Your task to perform on an android device: set an alarm Image 0: 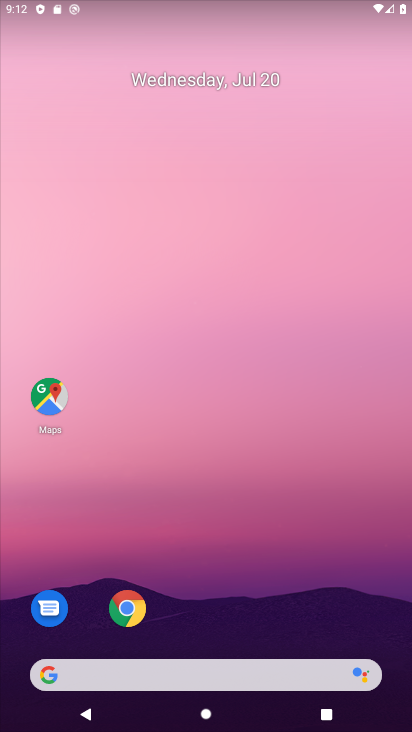
Step 0: drag from (313, 642) to (223, 63)
Your task to perform on an android device: set an alarm Image 1: 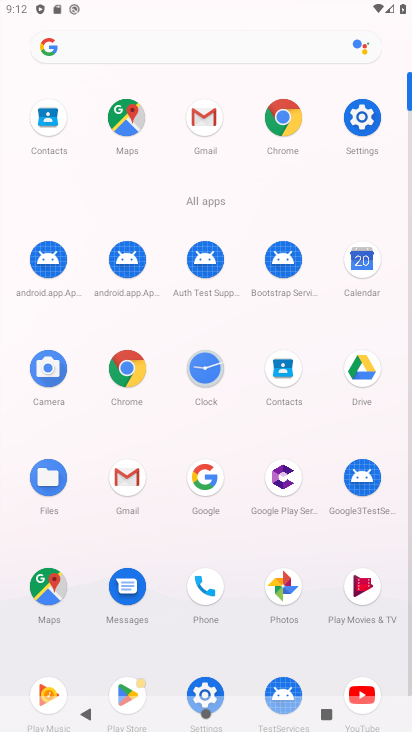
Step 1: click (209, 377)
Your task to perform on an android device: set an alarm Image 2: 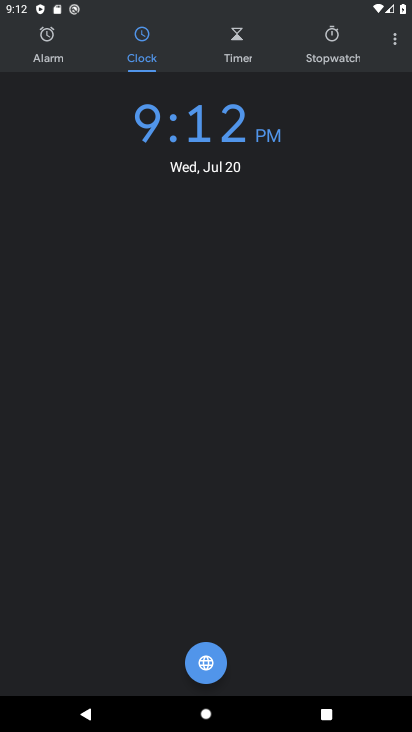
Step 2: click (53, 44)
Your task to perform on an android device: set an alarm Image 3: 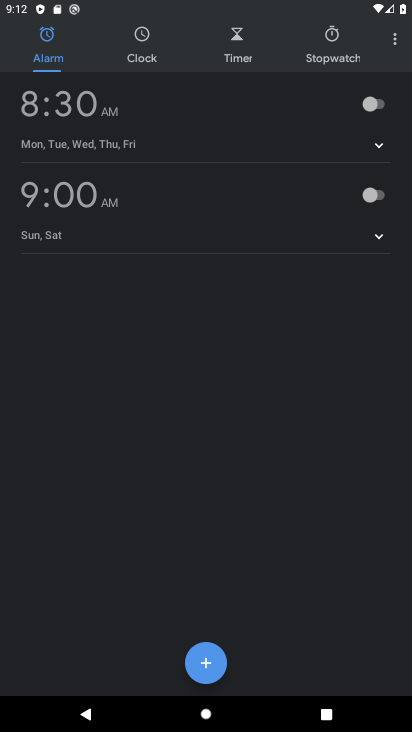
Step 3: click (219, 661)
Your task to perform on an android device: set an alarm Image 4: 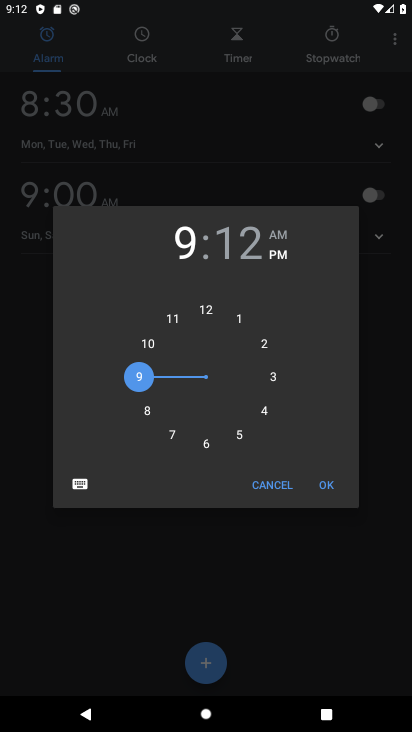
Step 4: click (320, 495)
Your task to perform on an android device: set an alarm Image 5: 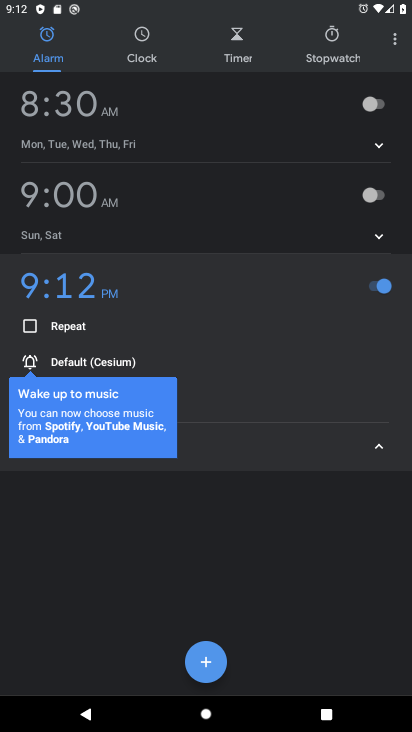
Step 5: task complete